Your task to perform on an android device: Go to battery settings Image 0: 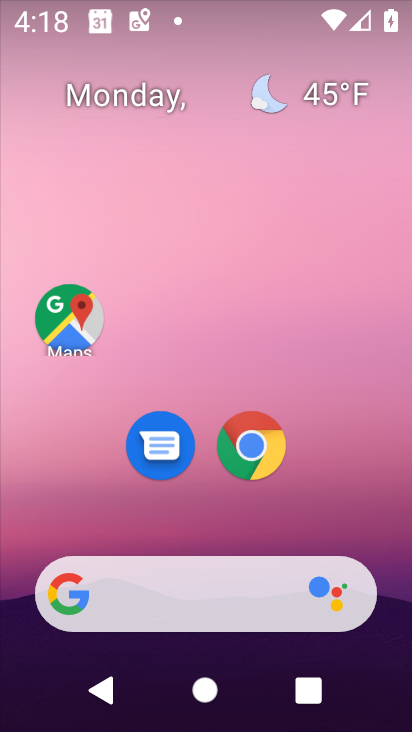
Step 0: drag from (284, 486) to (360, 18)
Your task to perform on an android device: Go to battery settings Image 1: 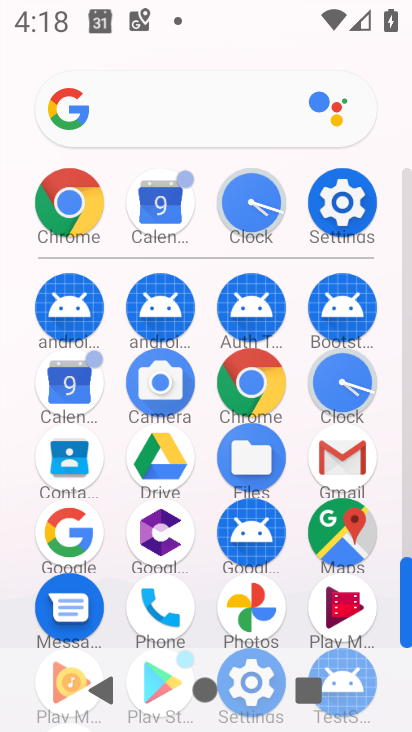
Step 1: click (338, 210)
Your task to perform on an android device: Go to battery settings Image 2: 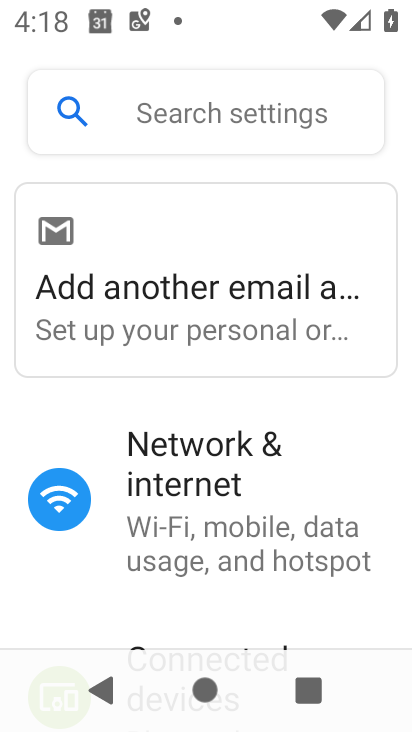
Step 2: drag from (234, 540) to (259, 210)
Your task to perform on an android device: Go to battery settings Image 3: 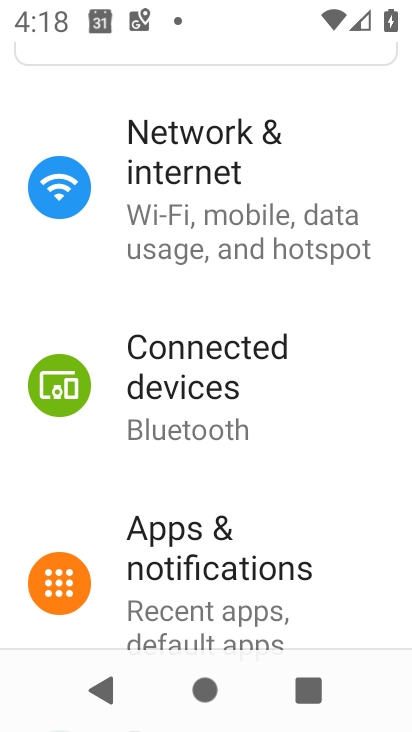
Step 3: drag from (231, 551) to (289, 257)
Your task to perform on an android device: Go to battery settings Image 4: 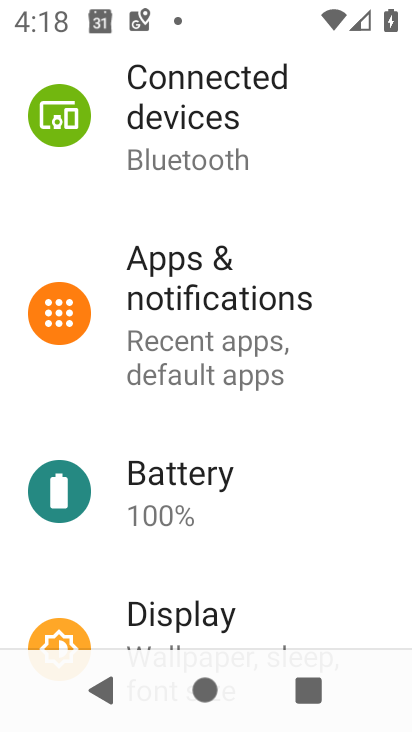
Step 4: drag from (250, 555) to (316, 264)
Your task to perform on an android device: Go to battery settings Image 5: 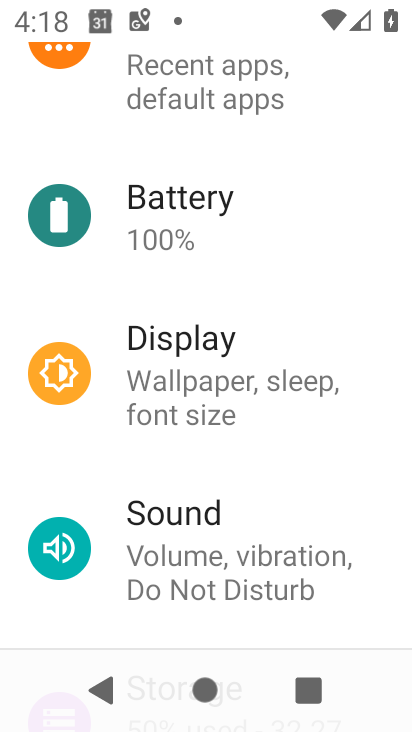
Step 5: click (267, 217)
Your task to perform on an android device: Go to battery settings Image 6: 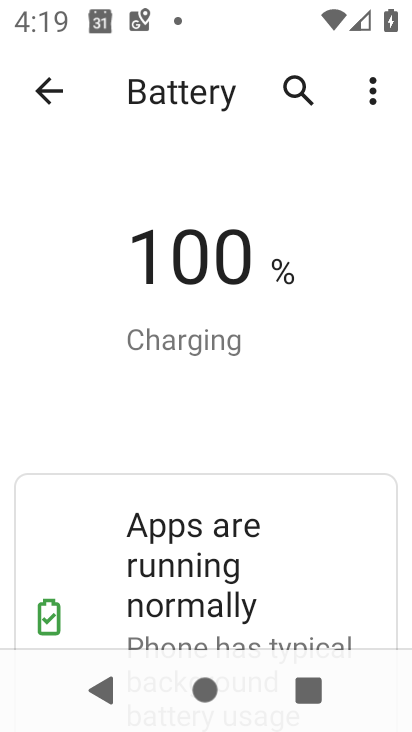
Step 6: task complete